Your task to perform on an android device: Go to Android settings Image 0: 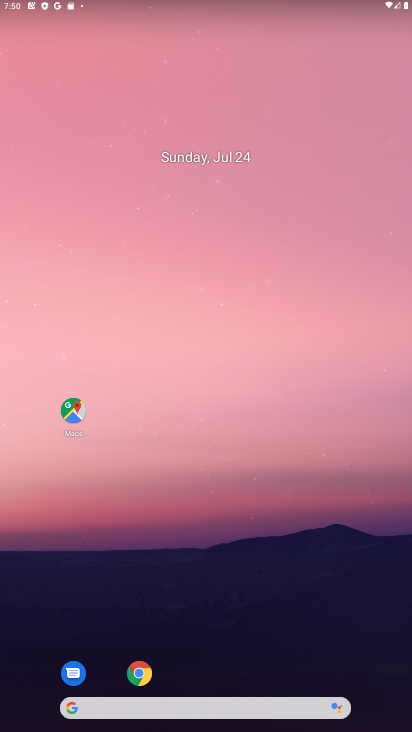
Step 0: drag from (59, 685) to (147, 88)
Your task to perform on an android device: Go to Android settings Image 1: 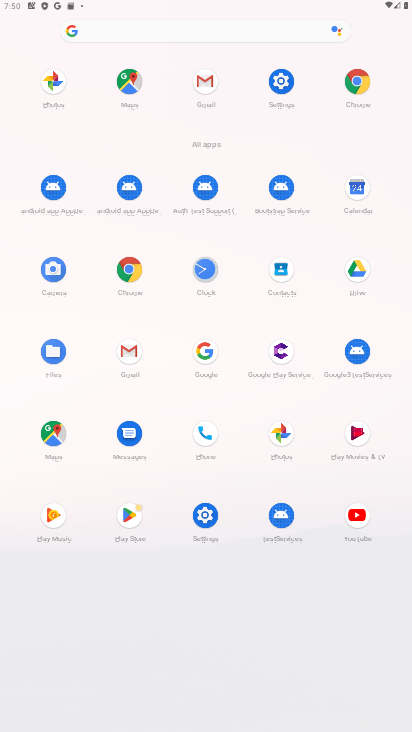
Step 1: click (196, 520)
Your task to perform on an android device: Go to Android settings Image 2: 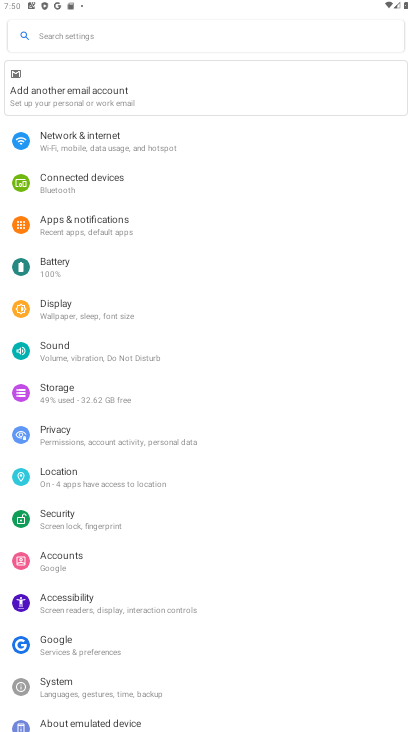
Step 2: click (109, 153)
Your task to perform on an android device: Go to Android settings Image 3: 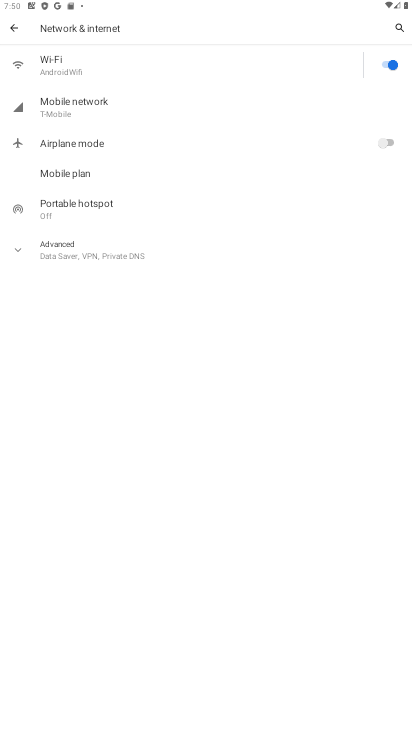
Step 3: click (13, 26)
Your task to perform on an android device: Go to Android settings Image 4: 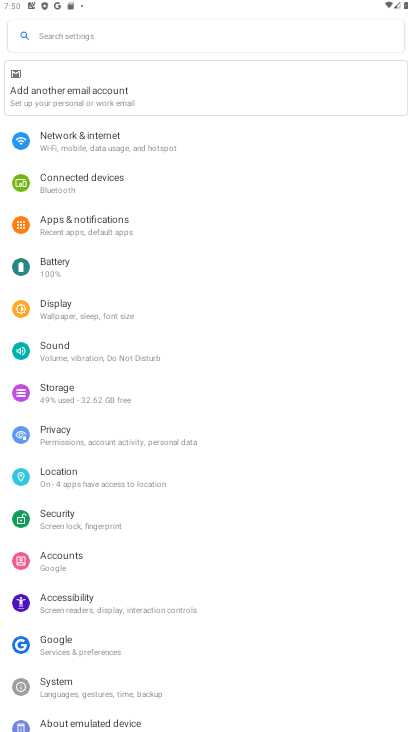
Step 4: click (99, 725)
Your task to perform on an android device: Go to Android settings Image 5: 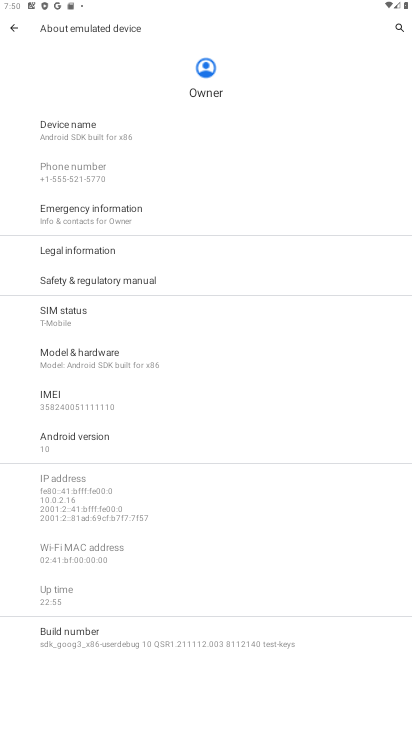
Step 5: click (107, 452)
Your task to perform on an android device: Go to Android settings Image 6: 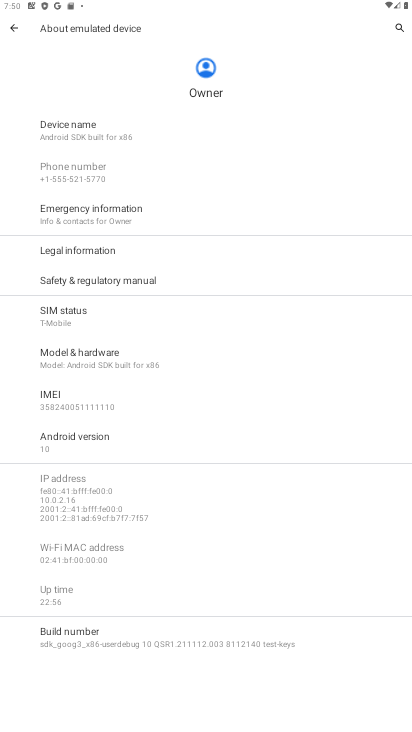
Step 6: click (103, 443)
Your task to perform on an android device: Go to Android settings Image 7: 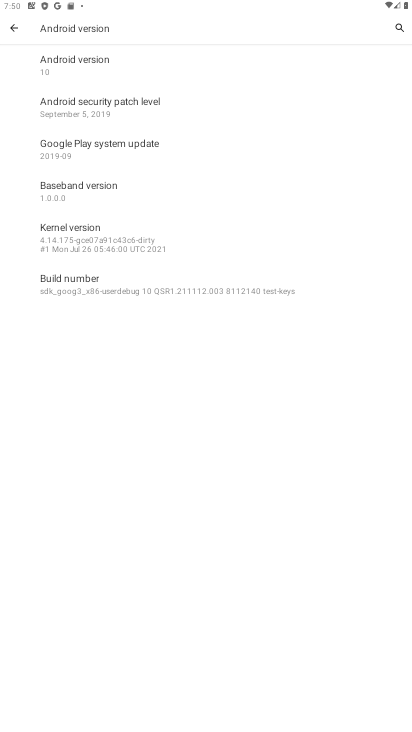
Step 7: task complete